Your task to perform on an android device: open app "McDonald's" (install if not already installed) Image 0: 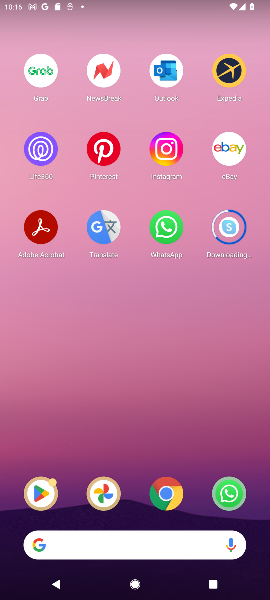
Step 0: click (32, 504)
Your task to perform on an android device: open app "McDonald's" (install if not already installed) Image 1: 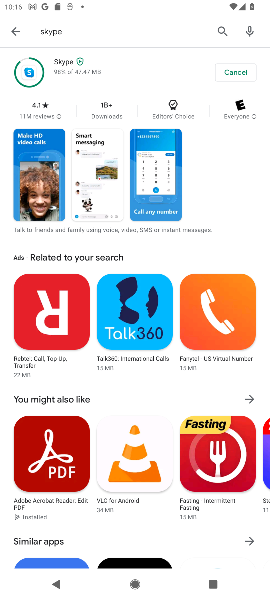
Step 1: click (222, 38)
Your task to perform on an android device: open app "McDonald's" (install if not already installed) Image 2: 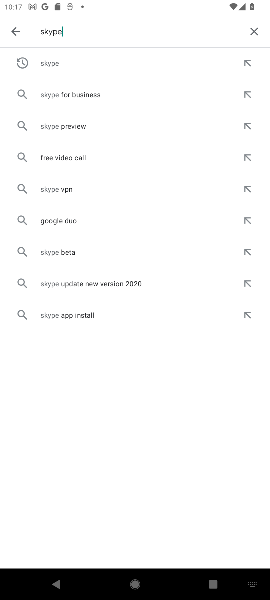
Step 2: click (256, 32)
Your task to perform on an android device: open app "McDonald's" (install if not already installed) Image 3: 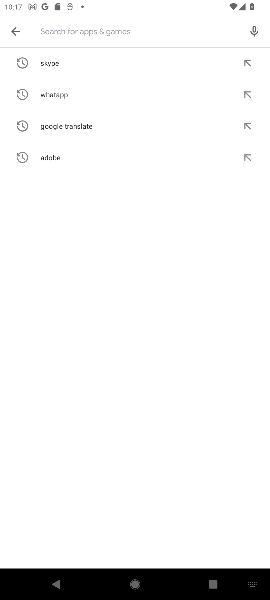
Step 3: type "mcdonalds"
Your task to perform on an android device: open app "McDonald's" (install if not already installed) Image 4: 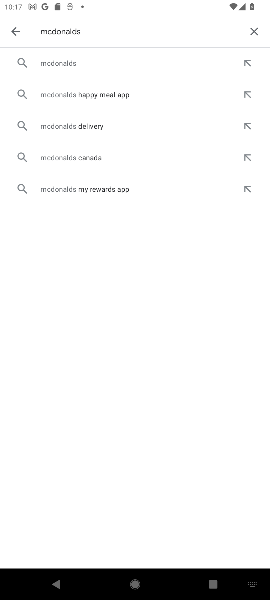
Step 4: click (107, 63)
Your task to perform on an android device: open app "McDonald's" (install if not already installed) Image 5: 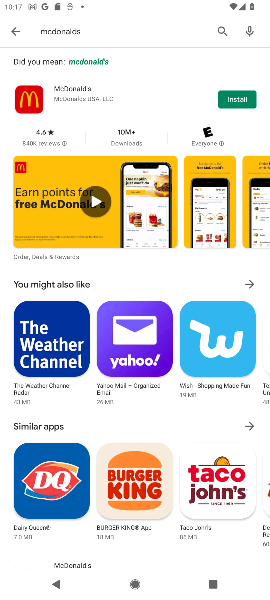
Step 5: click (234, 105)
Your task to perform on an android device: open app "McDonald's" (install if not already installed) Image 6: 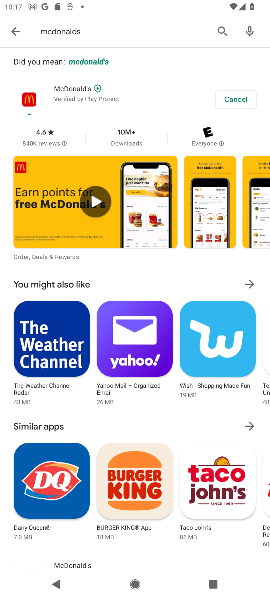
Step 6: task complete